Your task to perform on an android device: create a new album in the google photos Image 0: 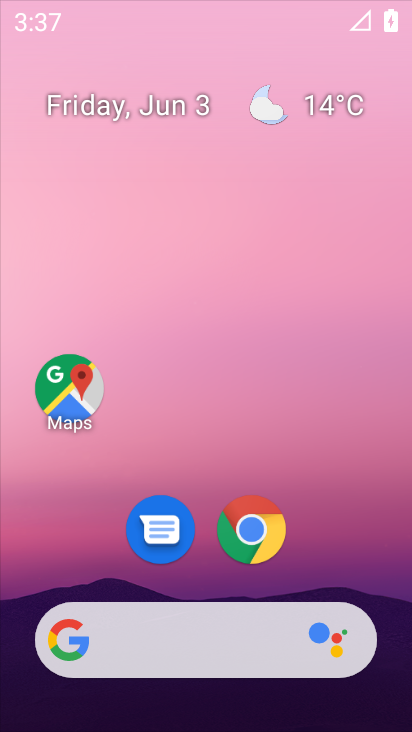
Step 0: click (321, 18)
Your task to perform on an android device: create a new album in the google photos Image 1: 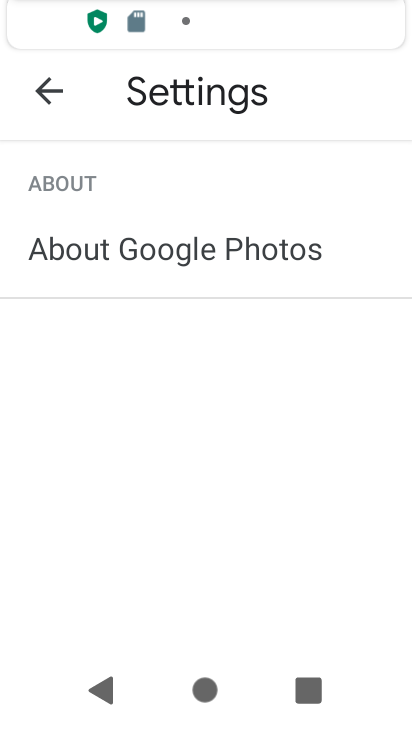
Step 1: press home button
Your task to perform on an android device: create a new album in the google photos Image 2: 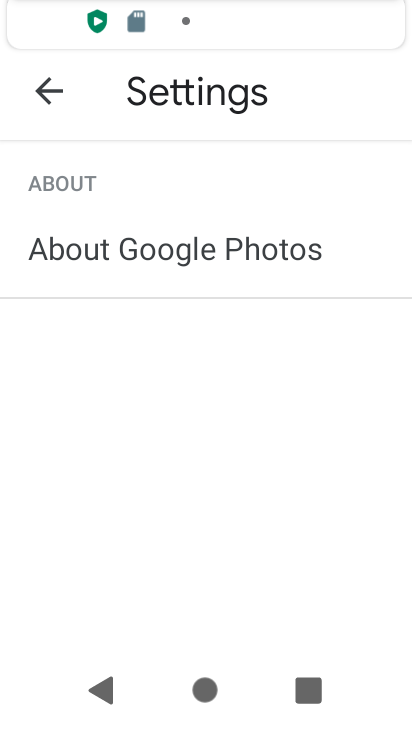
Step 2: click (403, 327)
Your task to perform on an android device: create a new album in the google photos Image 3: 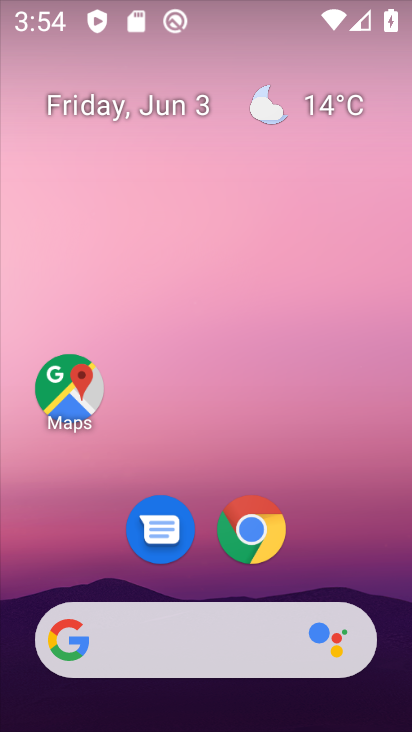
Step 3: drag from (337, 576) to (284, 85)
Your task to perform on an android device: create a new album in the google photos Image 4: 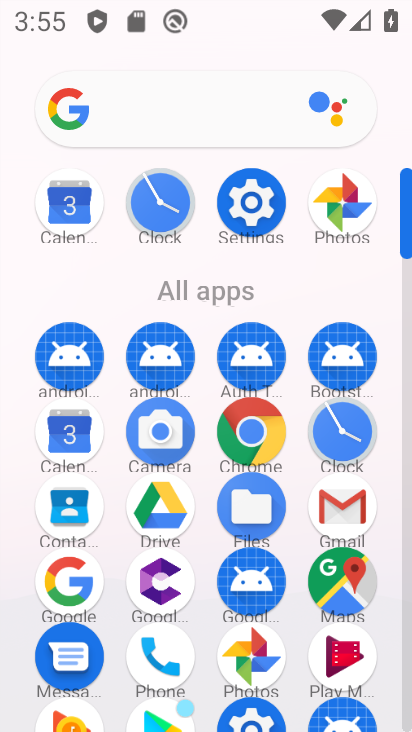
Step 4: click (344, 224)
Your task to perform on an android device: create a new album in the google photos Image 5: 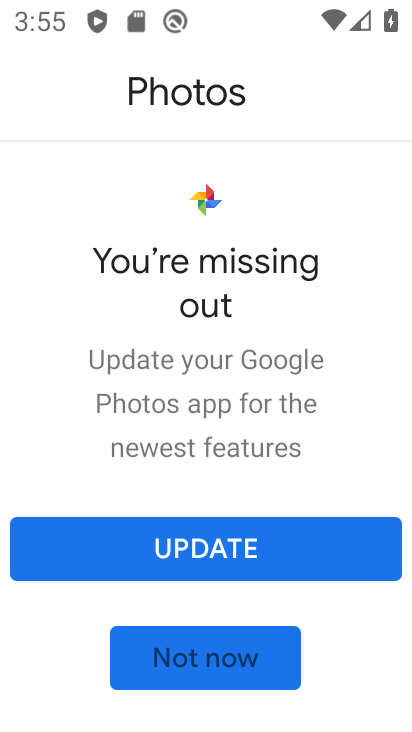
Step 5: click (243, 556)
Your task to perform on an android device: create a new album in the google photos Image 6: 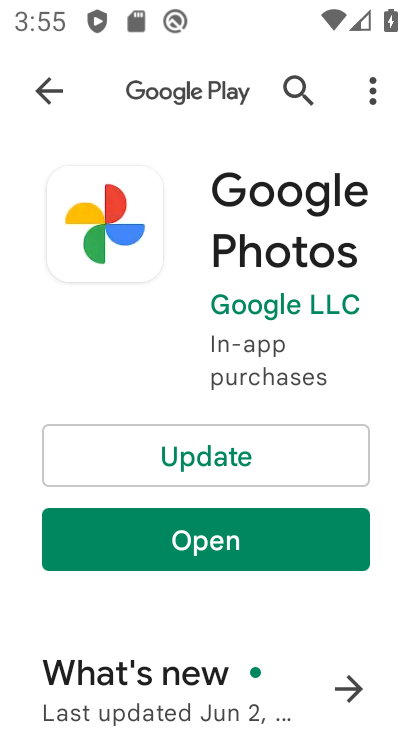
Step 6: click (229, 454)
Your task to perform on an android device: create a new album in the google photos Image 7: 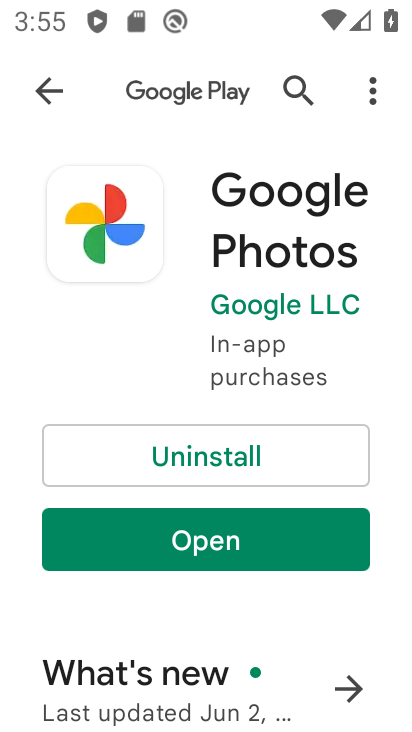
Step 7: click (228, 558)
Your task to perform on an android device: create a new album in the google photos Image 8: 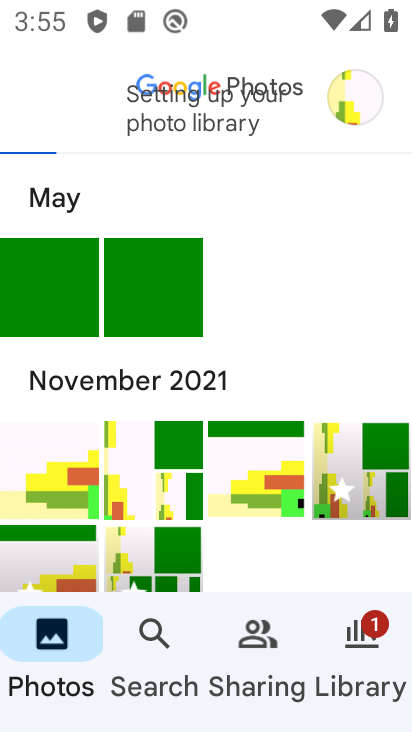
Step 8: task complete